Your task to perform on an android device: turn off location Image 0: 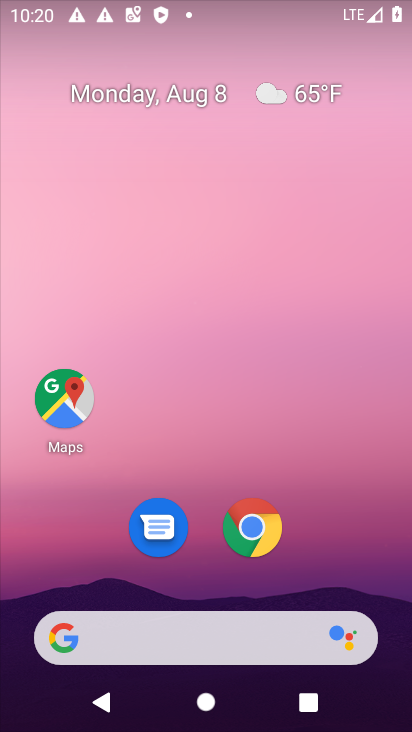
Step 0: drag from (385, 673) to (340, 274)
Your task to perform on an android device: turn off location Image 1: 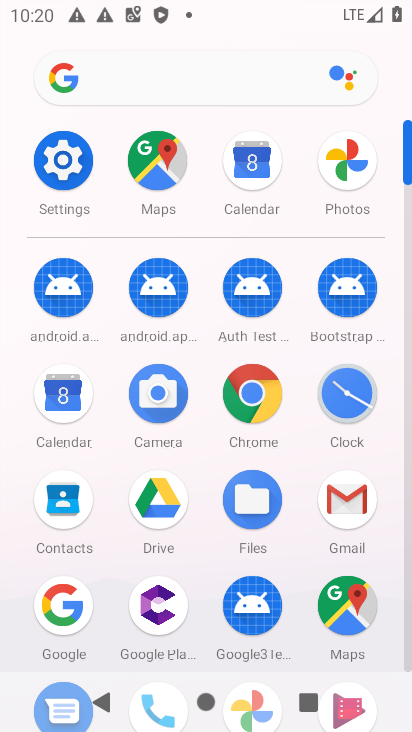
Step 1: click (60, 154)
Your task to perform on an android device: turn off location Image 2: 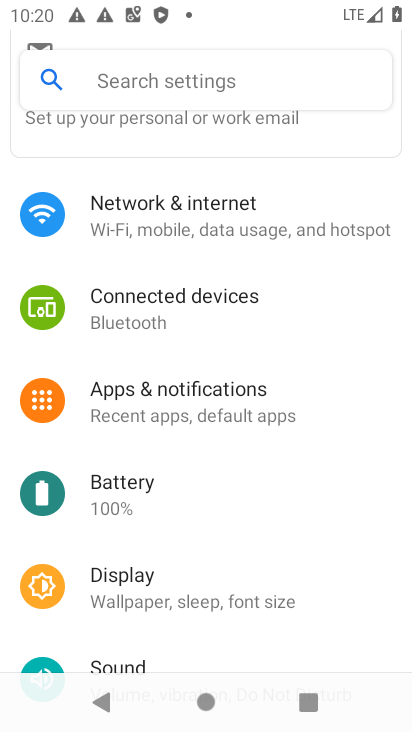
Step 2: drag from (276, 596) to (280, 307)
Your task to perform on an android device: turn off location Image 3: 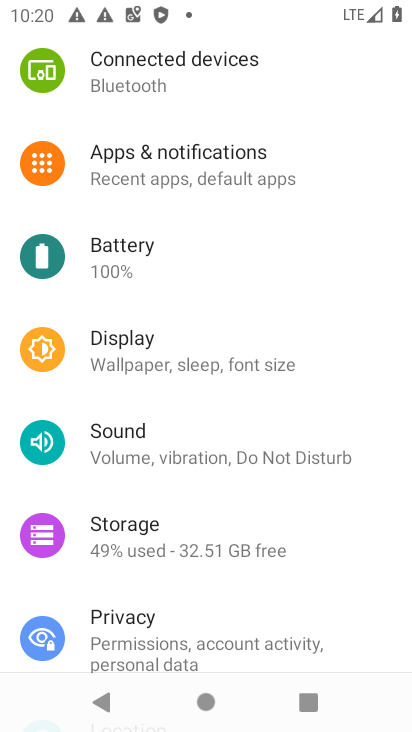
Step 3: drag from (266, 586) to (276, 328)
Your task to perform on an android device: turn off location Image 4: 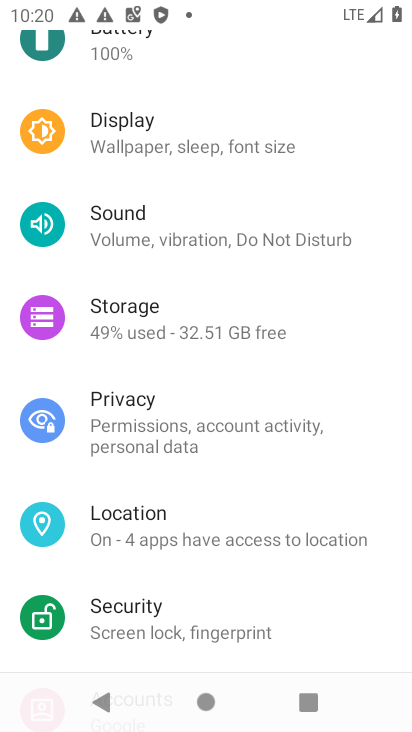
Step 4: click (134, 517)
Your task to perform on an android device: turn off location Image 5: 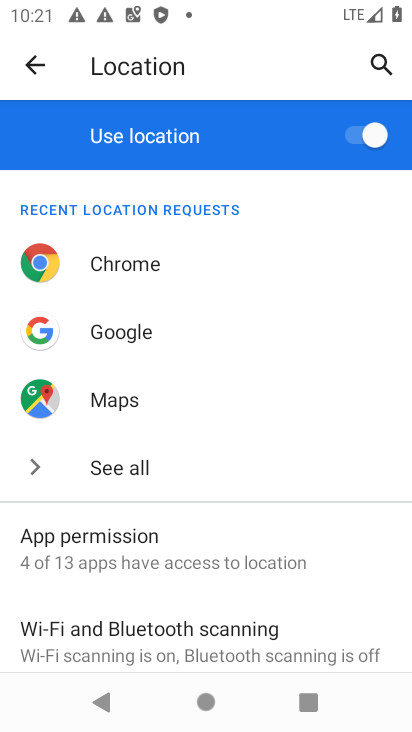
Step 5: drag from (253, 379) to (258, 276)
Your task to perform on an android device: turn off location Image 6: 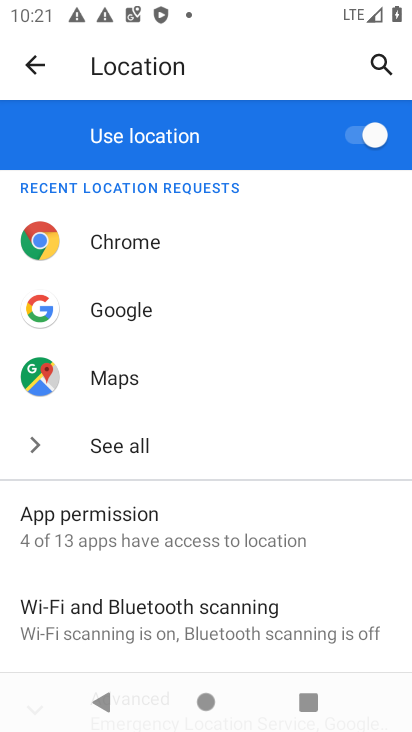
Step 6: drag from (269, 584) to (284, 272)
Your task to perform on an android device: turn off location Image 7: 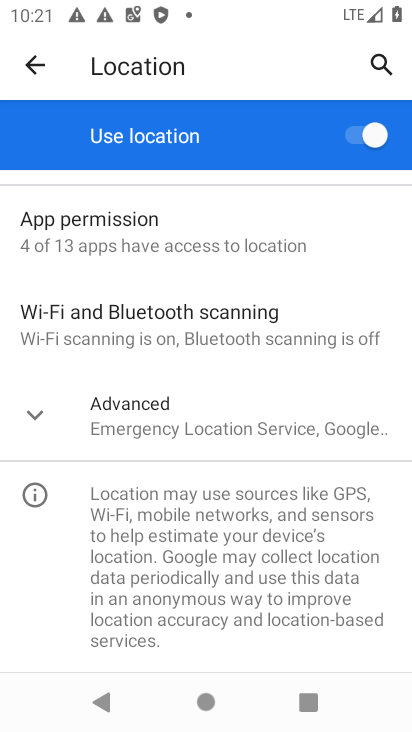
Step 7: click (346, 138)
Your task to perform on an android device: turn off location Image 8: 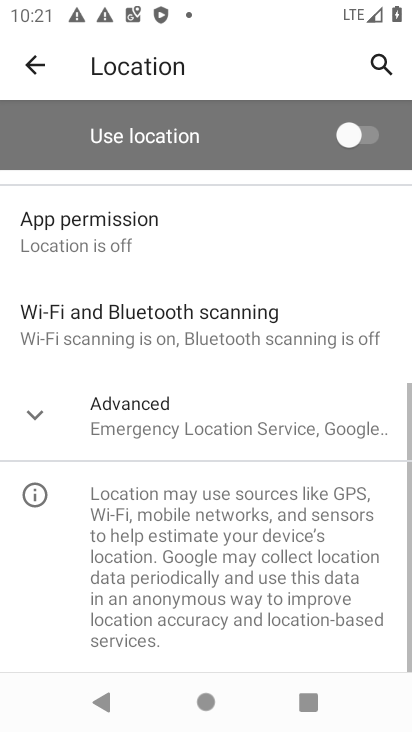
Step 8: task complete